Your task to perform on an android device: check android version Image 0: 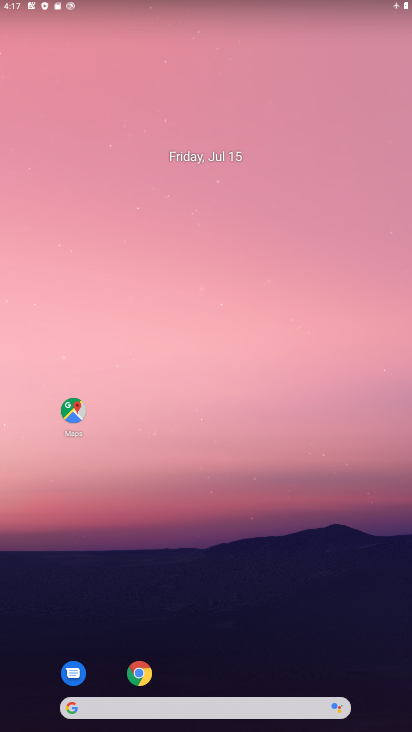
Step 0: drag from (291, 649) to (285, 360)
Your task to perform on an android device: check android version Image 1: 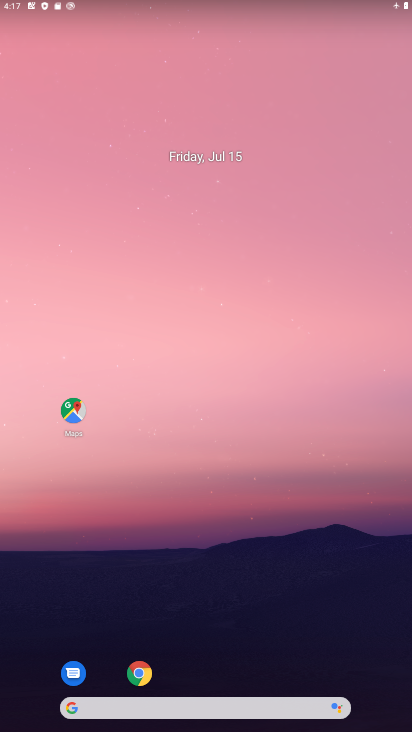
Step 1: drag from (227, 635) to (231, 190)
Your task to perform on an android device: check android version Image 2: 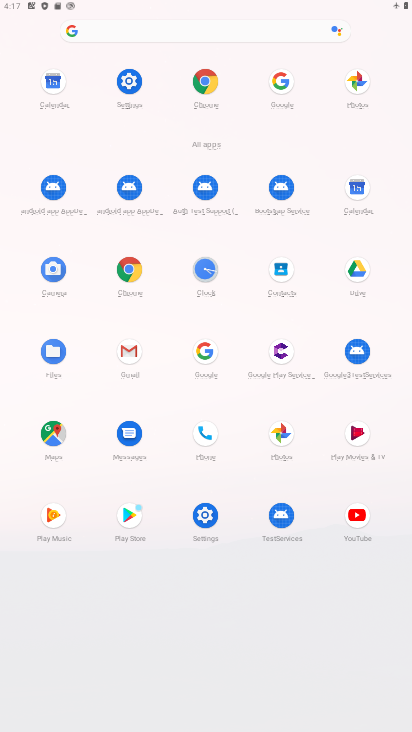
Step 2: click (132, 82)
Your task to perform on an android device: check android version Image 3: 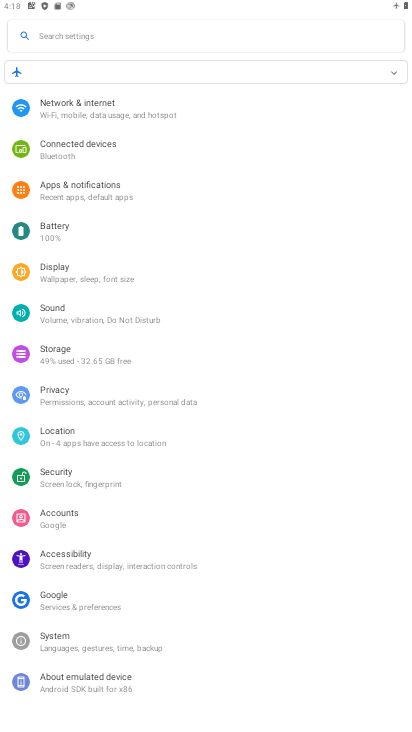
Step 3: click (124, 680)
Your task to perform on an android device: check android version Image 4: 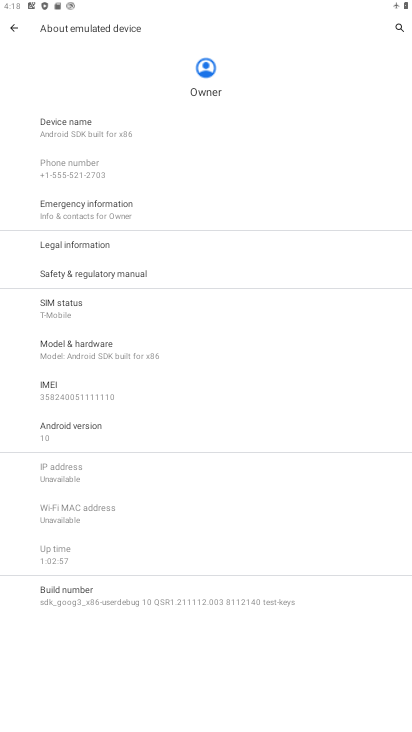
Step 4: click (123, 438)
Your task to perform on an android device: check android version Image 5: 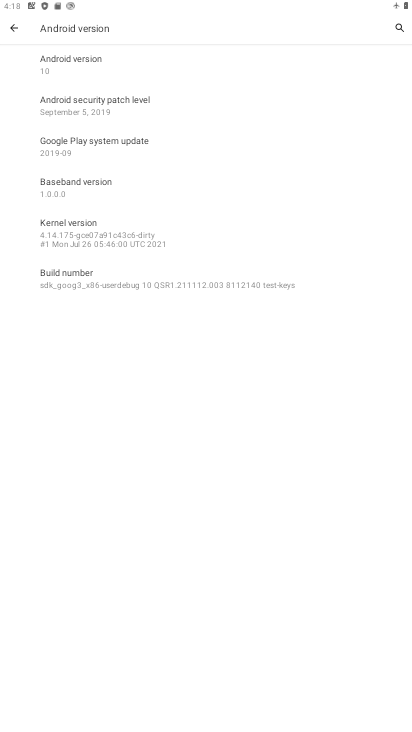
Step 5: task complete